Your task to perform on an android device: Go to wifi settings Image 0: 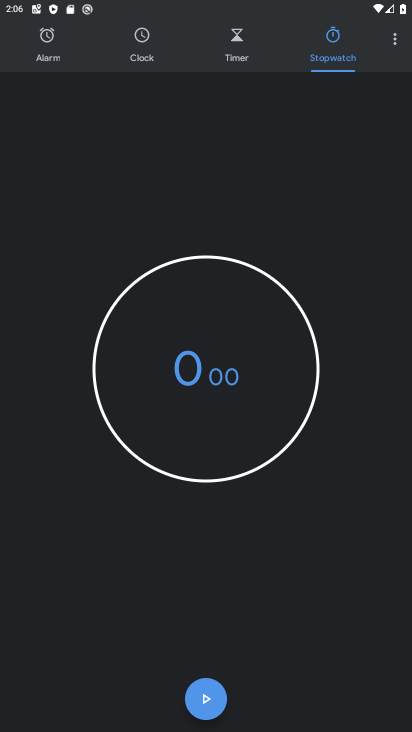
Step 0: press home button
Your task to perform on an android device: Go to wifi settings Image 1: 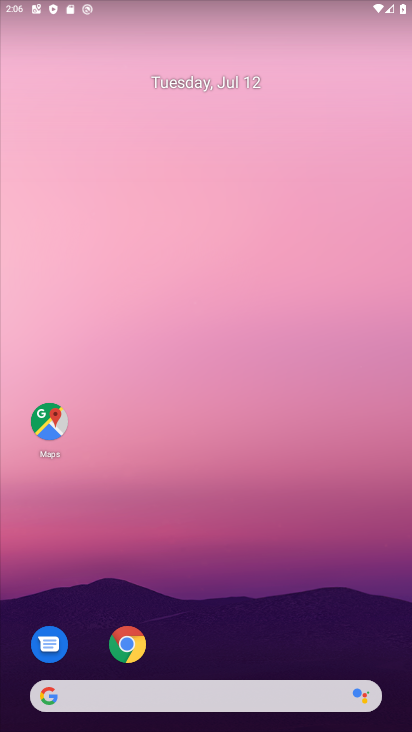
Step 1: drag from (217, 662) to (154, 116)
Your task to perform on an android device: Go to wifi settings Image 2: 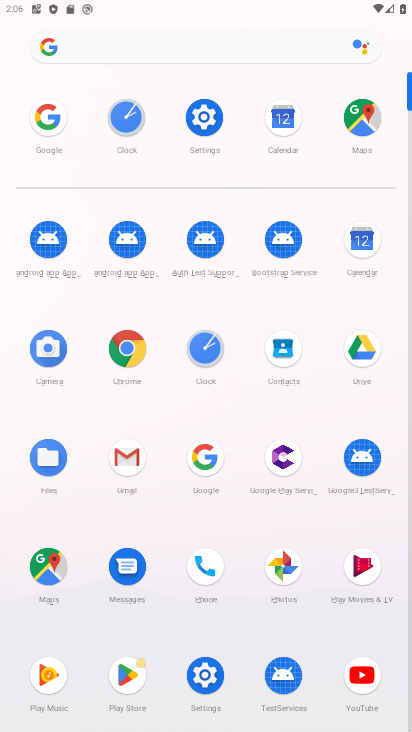
Step 2: click (191, 106)
Your task to perform on an android device: Go to wifi settings Image 3: 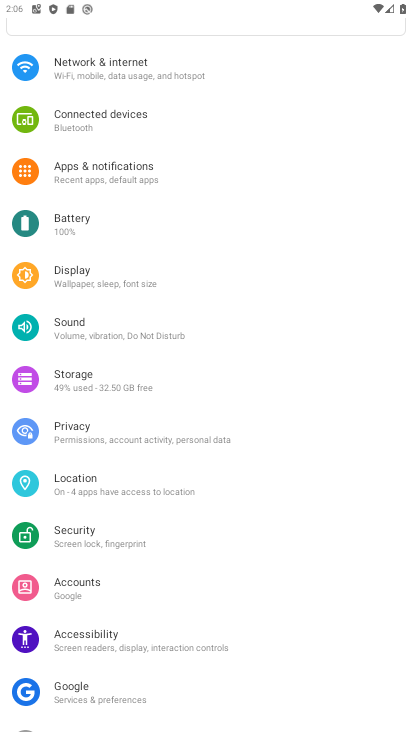
Step 3: click (48, 70)
Your task to perform on an android device: Go to wifi settings Image 4: 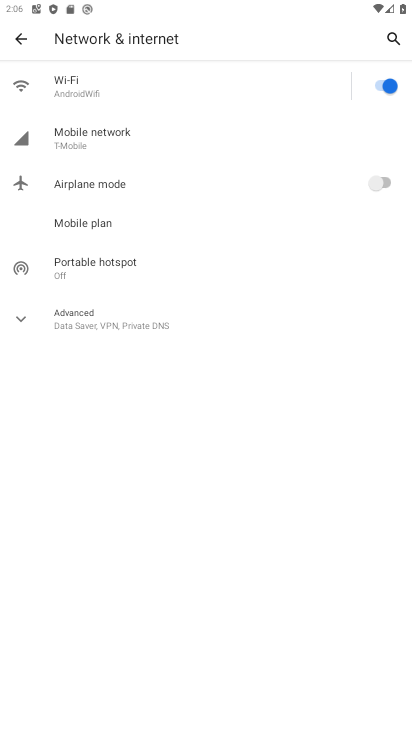
Step 4: click (63, 96)
Your task to perform on an android device: Go to wifi settings Image 5: 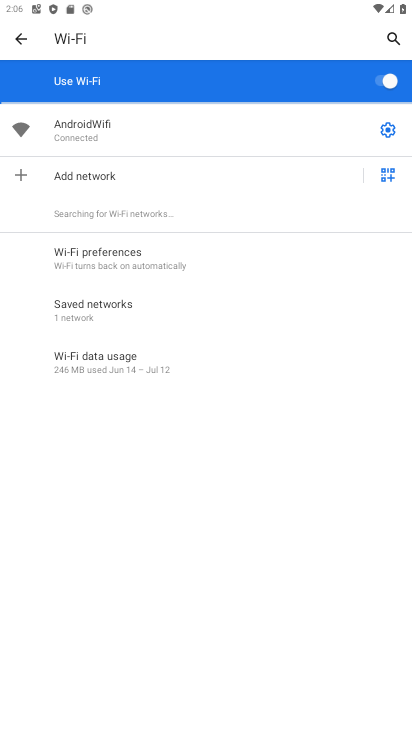
Step 5: task complete